Your task to perform on an android device: See recent photos Image 0: 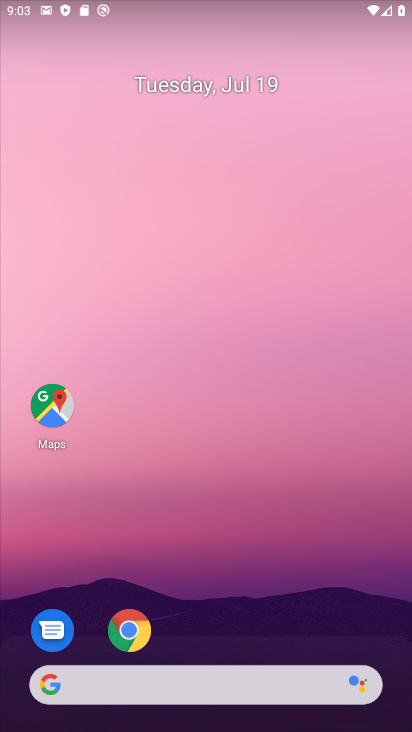
Step 0: drag from (20, 711) to (142, 285)
Your task to perform on an android device: See recent photos Image 1: 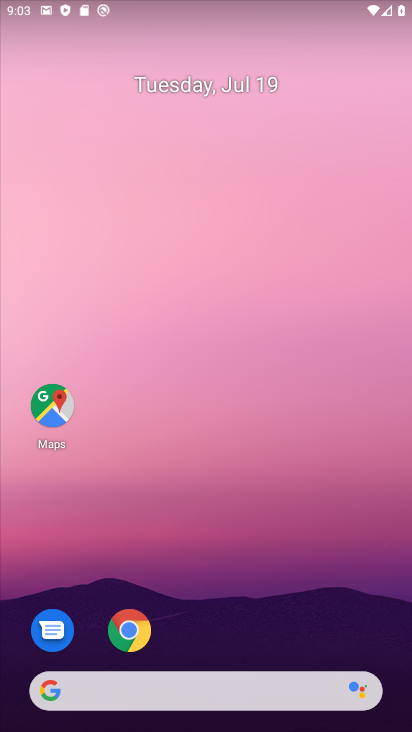
Step 1: drag from (29, 682) to (274, 36)
Your task to perform on an android device: See recent photos Image 2: 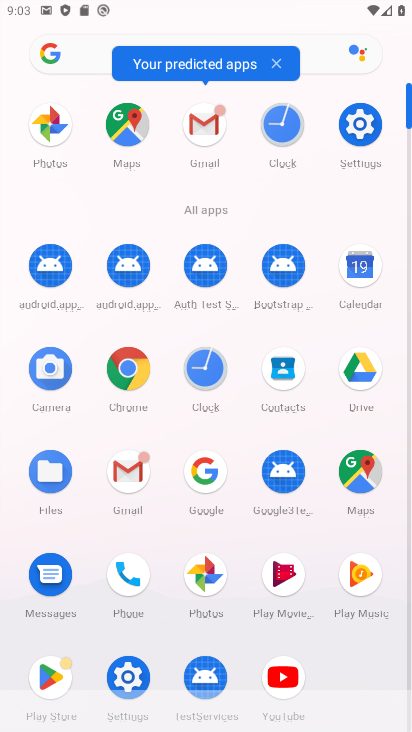
Step 2: click (223, 576)
Your task to perform on an android device: See recent photos Image 3: 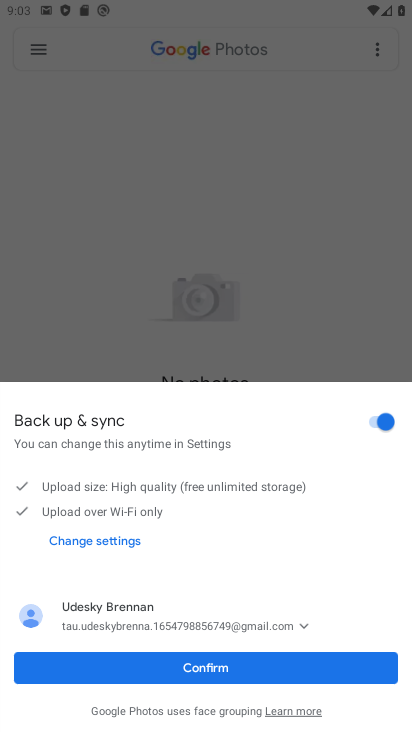
Step 3: click (200, 649)
Your task to perform on an android device: See recent photos Image 4: 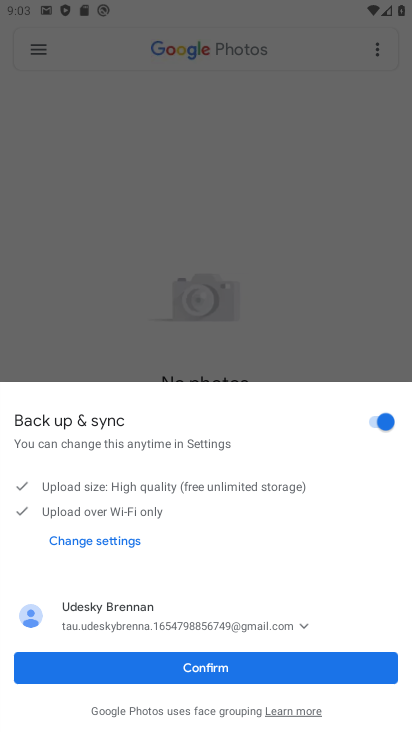
Step 4: click (204, 661)
Your task to perform on an android device: See recent photos Image 5: 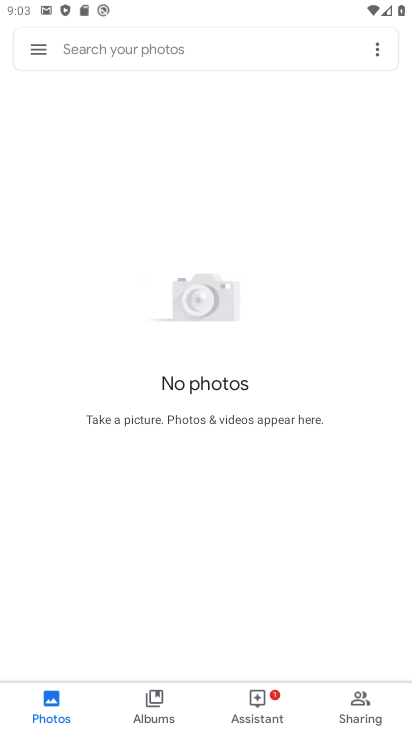
Step 5: task complete